Your task to perform on an android device: What is the news today? Image 0: 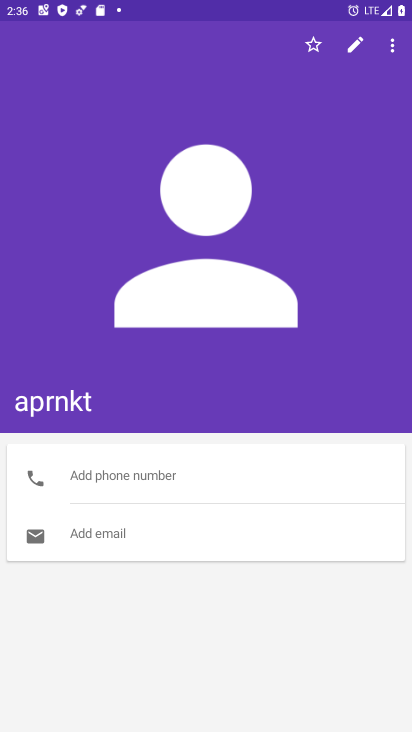
Step 0: press home button
Your task to perform on an android device: What is the news today? Image 1: 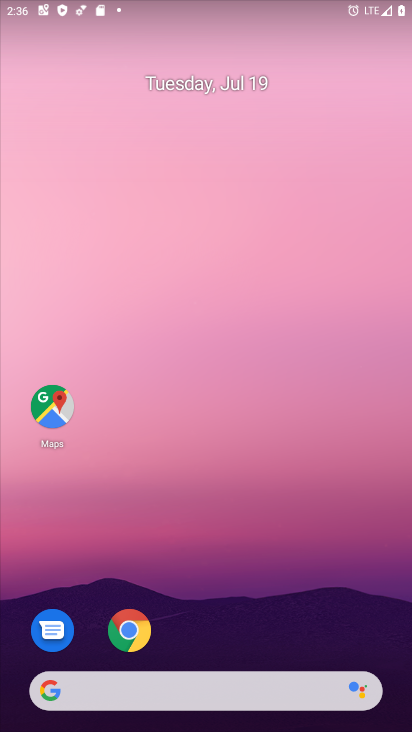
Step 1: task complete